Your task to perform on an android device: turn on javascript in the chrome app Image 0: 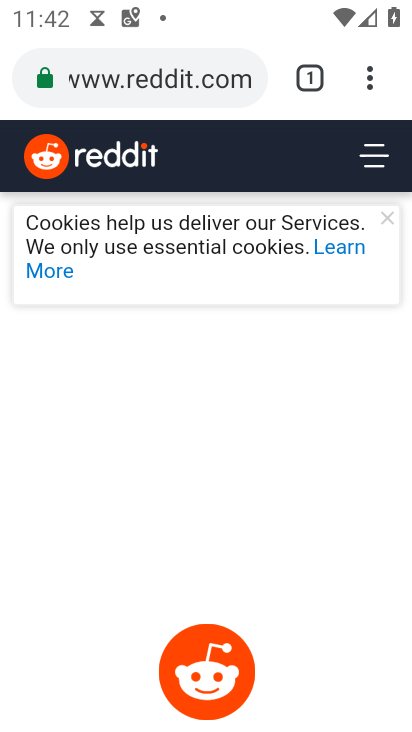
Step 0: press home button
Your task to perform on an android device: turn on javascript in the chrome app Image 1: 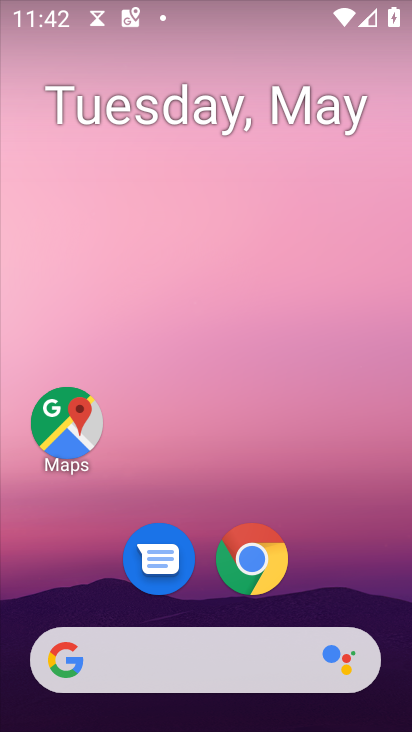
Step 1: drag from (350, 576) to (367, 81)
Your task to perform on an android device: turn on javascript in the chrome app Image 2: 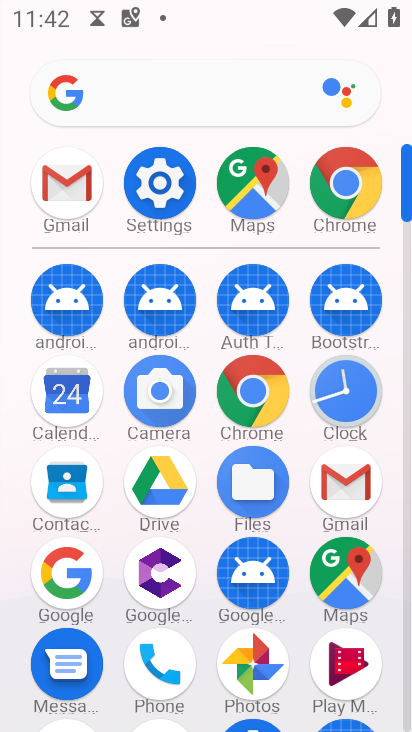
Step 2: click (347, 196)
Your task to perform on an android device: turn on javascript in the chrome app Image 3: 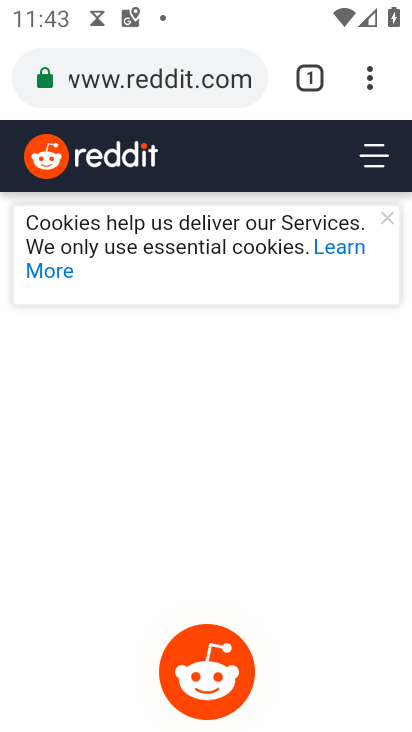
Step 3: drag from (373, 89) to (207, 626)
Your task to perform on an android device: turn on javascript in the chrome app Image 4: 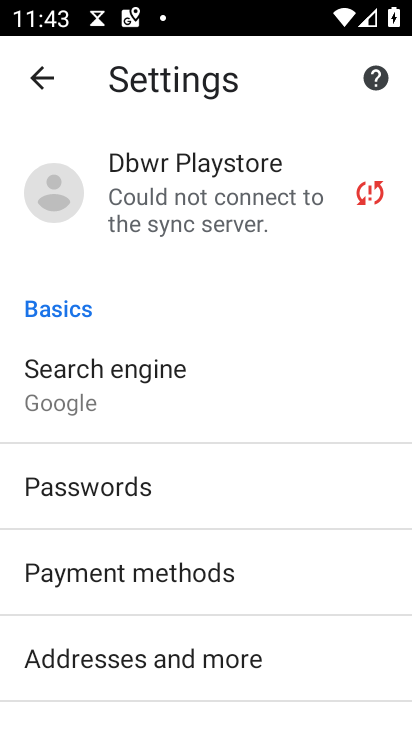
Step 4: drag from (253, 588) to (240, 217)
Your task to perform on an android device: turn on javascript in the chrome app Image 5: 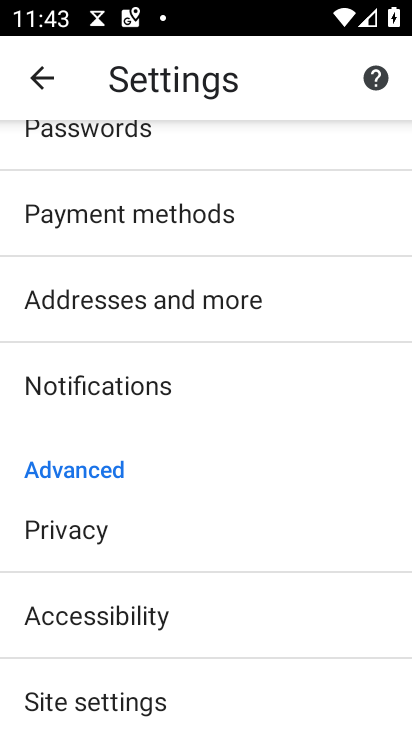
Step 5: drag from (169, 565) to (136, 280)
Your task to perform on an android device: turn on javascript in the chrome app Image 6: 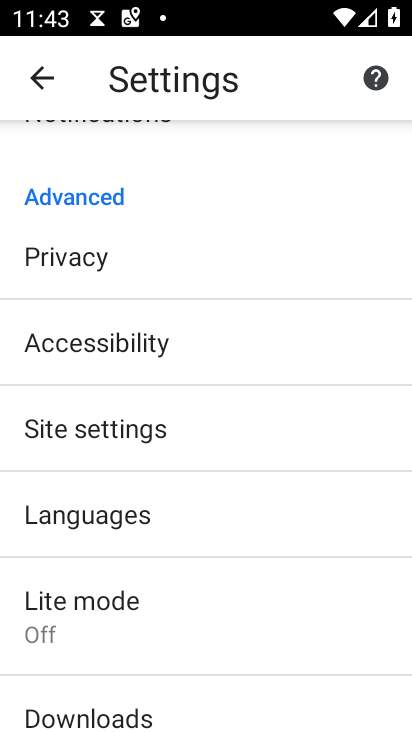
Step 6: click (101, 435)
Your task to perform on an android device: turn on javascript in the chrome app Image 7: 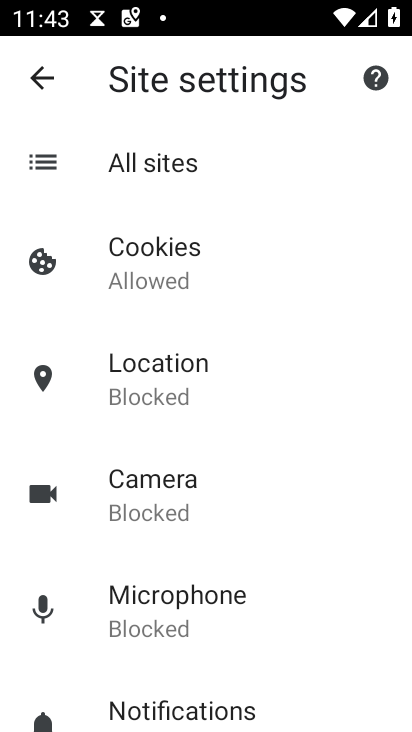
Step 7: drag from (245, 650) to (284, 166)
Your task to perform on an android device: turn on javascript in the chrome app Image 8: 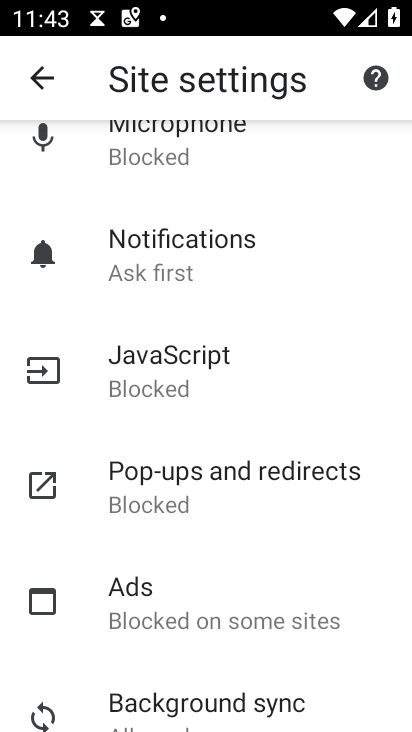
Step 8: click (187, 370)
Your task to perform on an android device: turn on javascript in the chrome app Image 9: 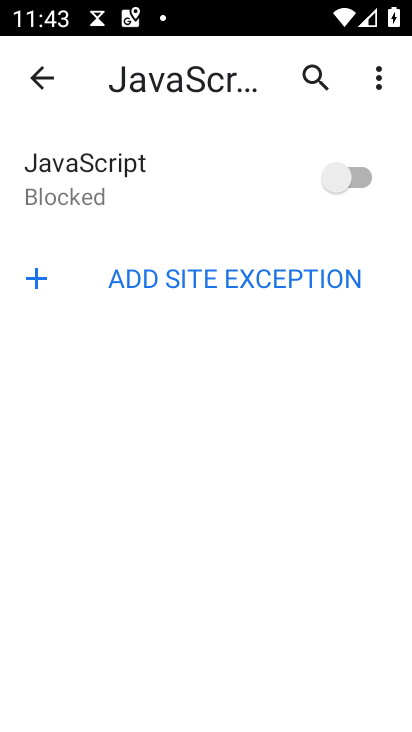
Step 9: click (348, 188)
Your task to perform on an android device: turn on javascript in the chrome app Image 10: 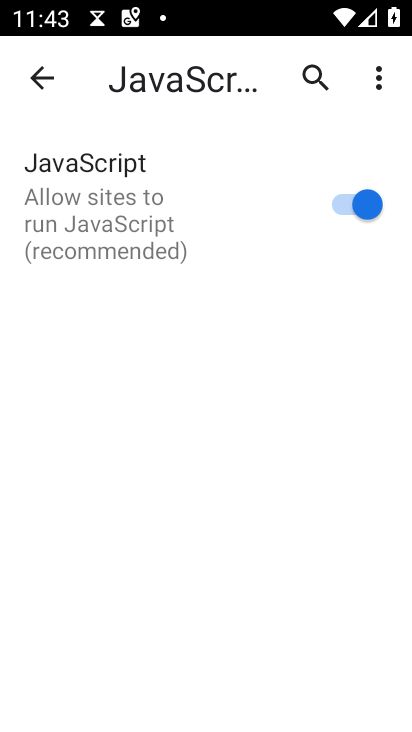
Step 10: task complete